Your task to perform on an android device: Play the last video I watched on Youtube Image 0: 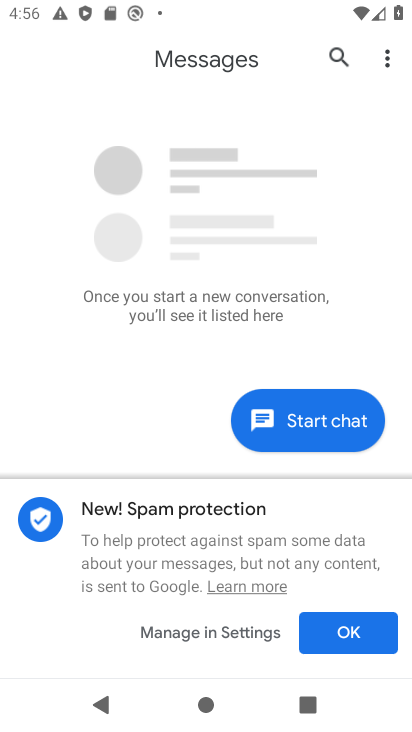
Step 0: press back button
Your task to perform on an android device: Play the last video I watched on Youtube Image 1: 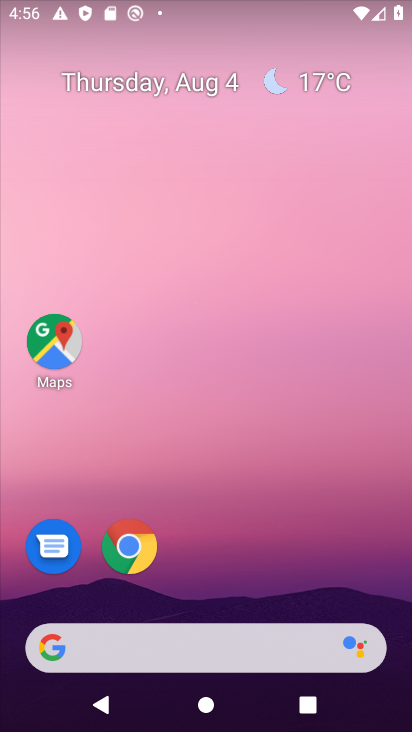
Step 1: drag from (177, 550) to (137, 238)
Your task to perform on an android device: Play the last video I watched on Youtube Image 2: 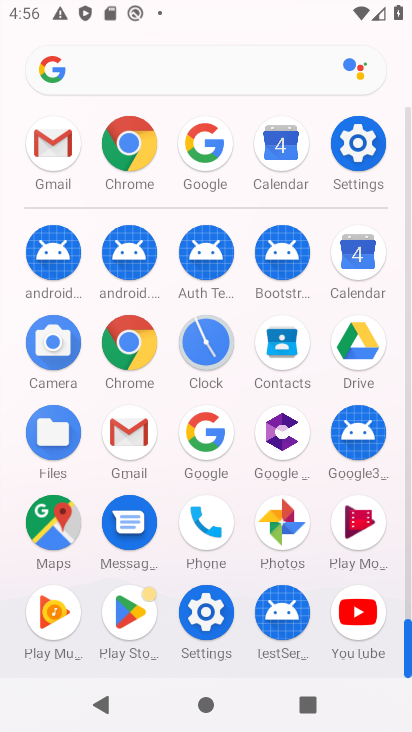
Step 2: click (356, 633)
Your task to perform on an android device: Play the last video I watched on Youtube Image 3: 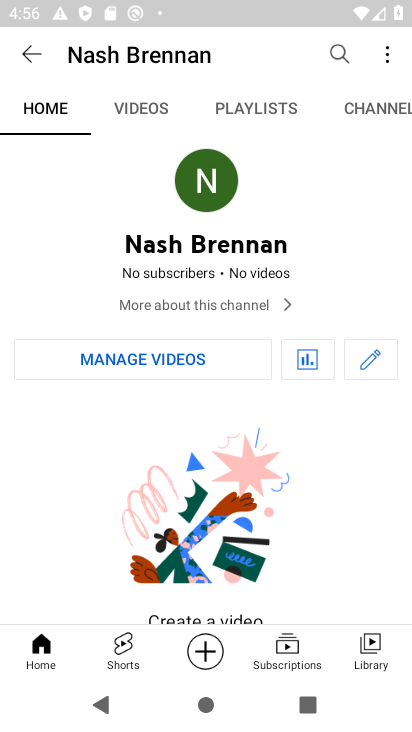
Step 3: click (362, 660)
Your task to perform on an android device: Play the last video I watched on Youtube Image 4: 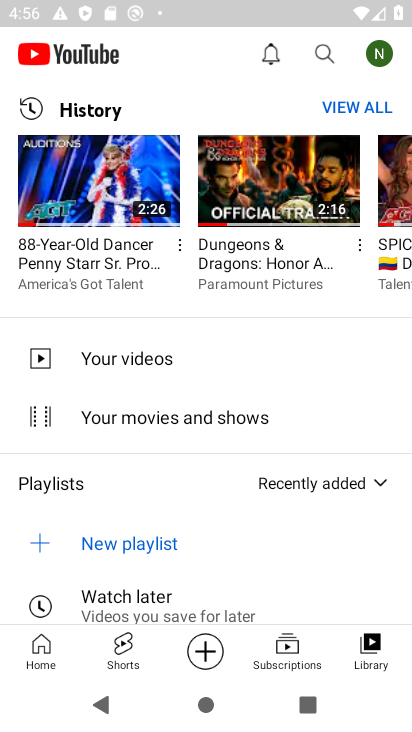
Step 4: click (80, 134)
Your task to perform on an android device: Play the last video I watched on Youtube Image 5: 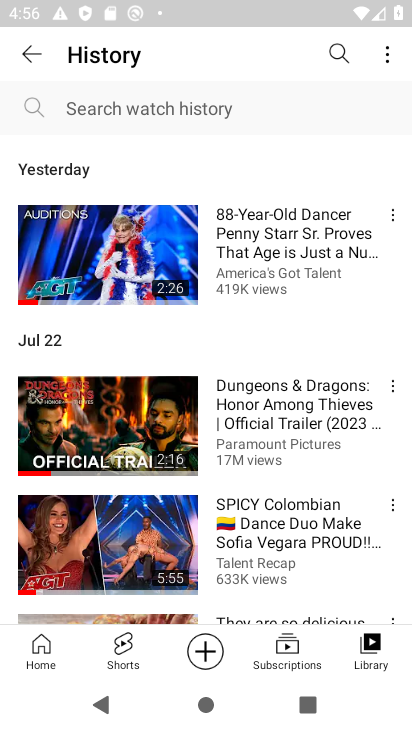
Step 5: task complete